Your task to perform on an android device: Open network settings Image 0: 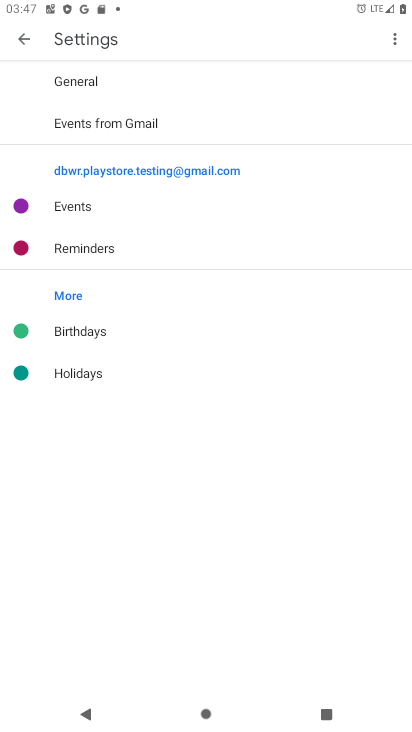
Step 0: press home button
Your task to perform on an android device: Open network settings Image 1: 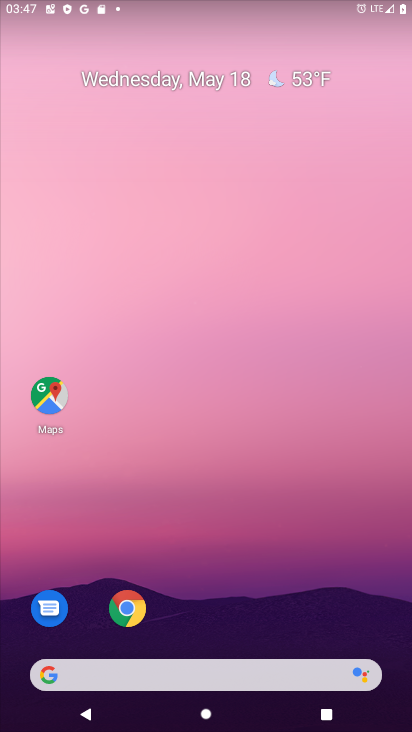
Step 1: drag from (342, 616) to (395, 24)
Your task to perform on an android device: Open network settings Image 2: 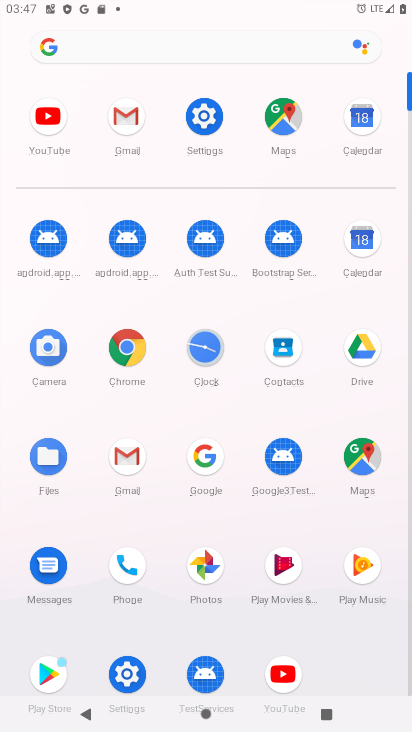
Step 2: click (190, 127)
Your task to perform on an android device: Open network settings Image 3: 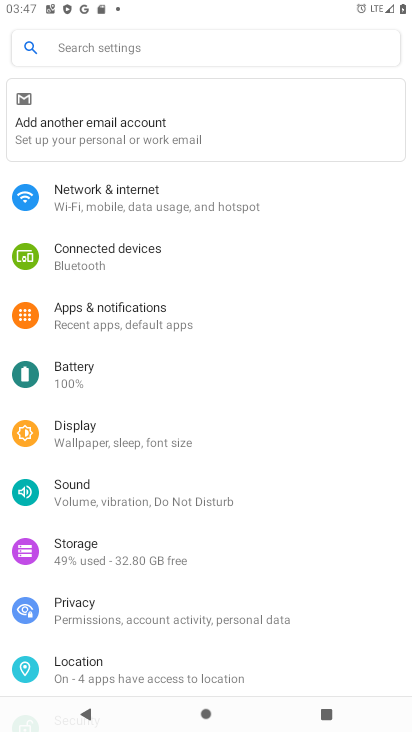
Step 3: click (89, 202)
Your task to perform on an android device: Open network settings Image 4: 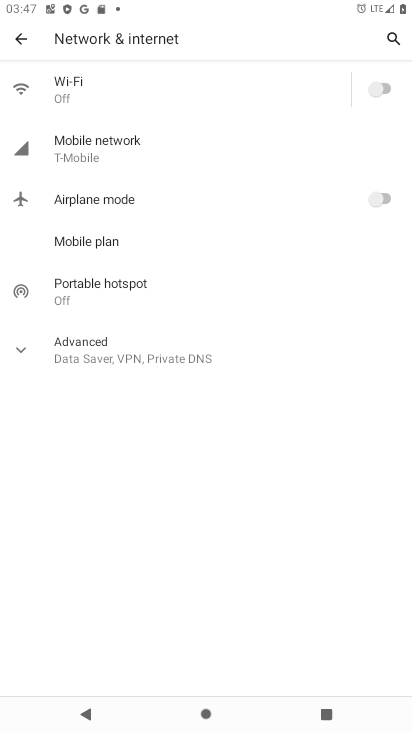
Step 4: click (80, 155)
Your task to perform on an android device: Open network settings Image 5: 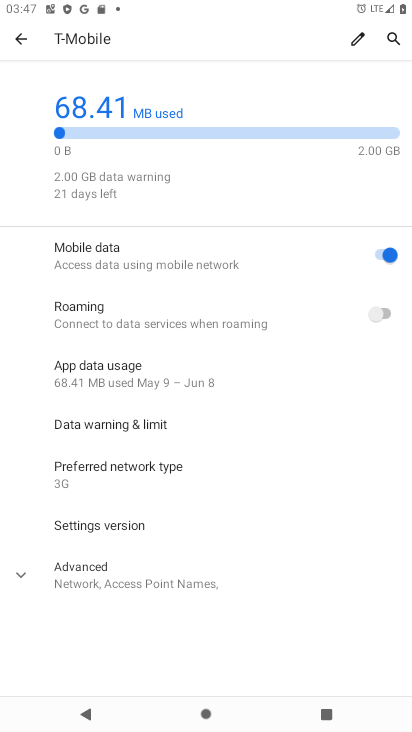
Step 5: click (9, 588)
Your task to perform on an android device: Open network settings Image 6: 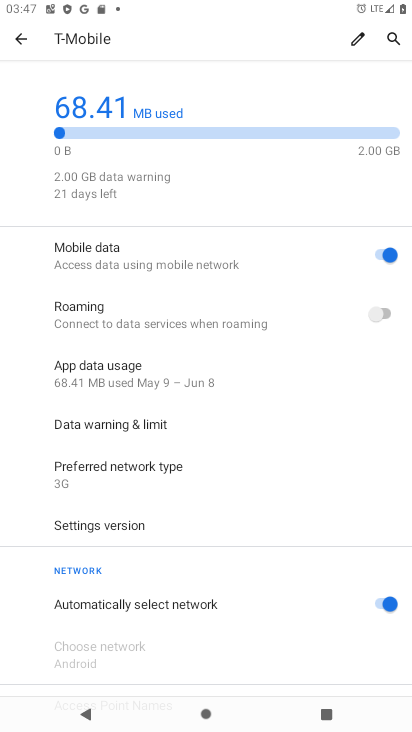
Step 6: task complete